Your task to perform on an android device: toggle wifi Image 0: 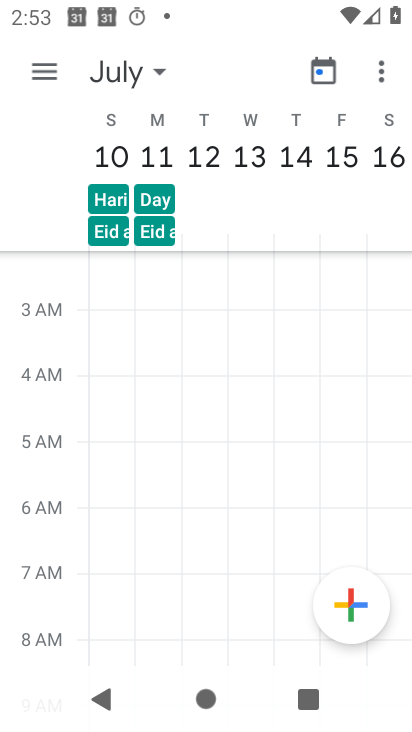
Step 0: press home button
Your task to perform on an android device: toggle wifi Image 1: 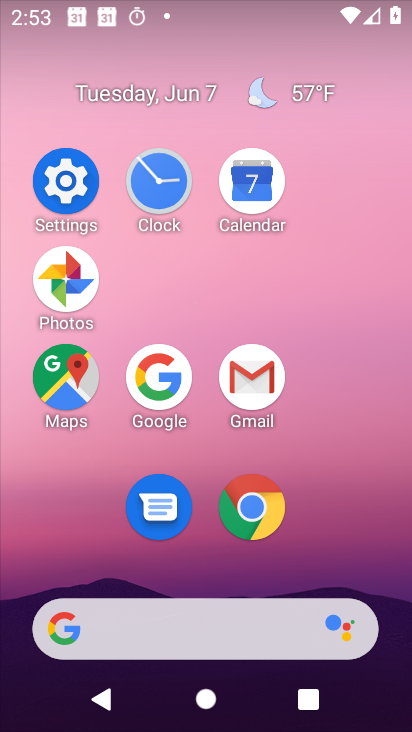
Step 1: click (84, 175)
Your task to perform on an android device: toggle wifi Image 2: 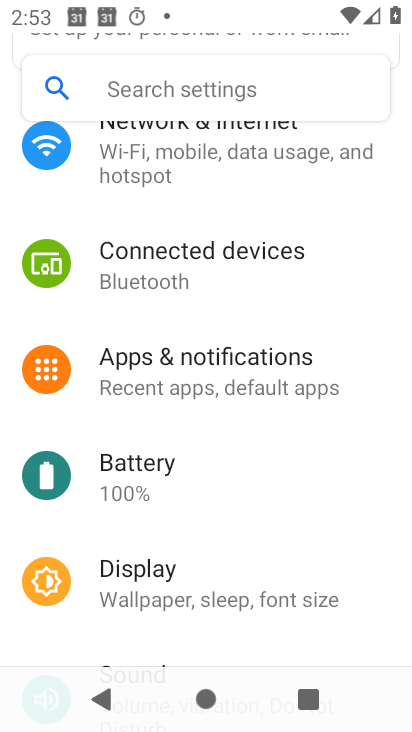
Step 2: drag from (284, 177) to (238, 439)
Your task to perform on an android device: toggle wifi Image 3: 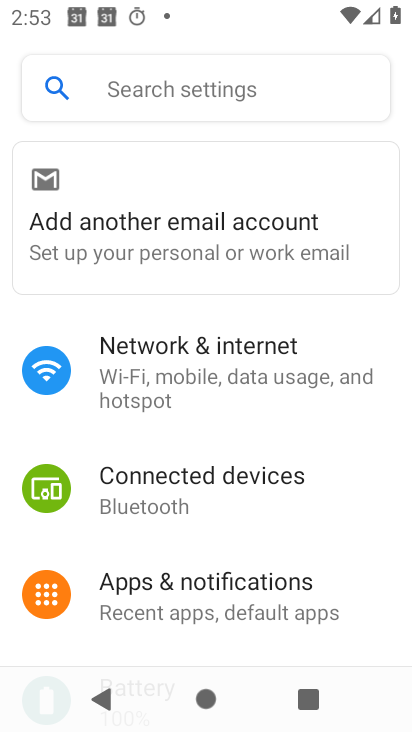
Step 3: click (239, 312)
Your task to perform on an android device: toggle wifi Image 4: 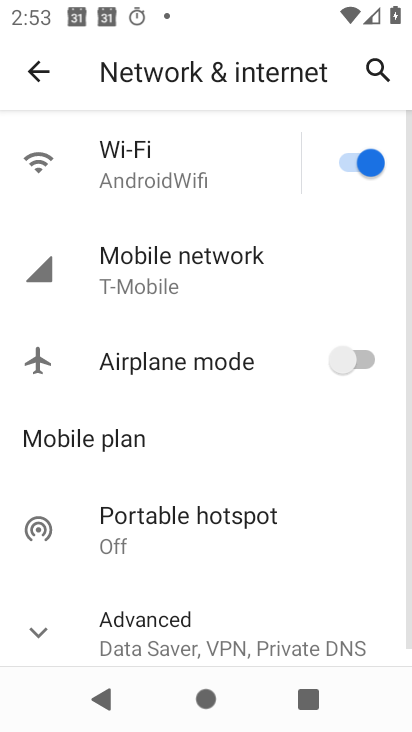
Step 4: click (343, 170)
Your task to perform on an android device: toggle wifi Image 5: 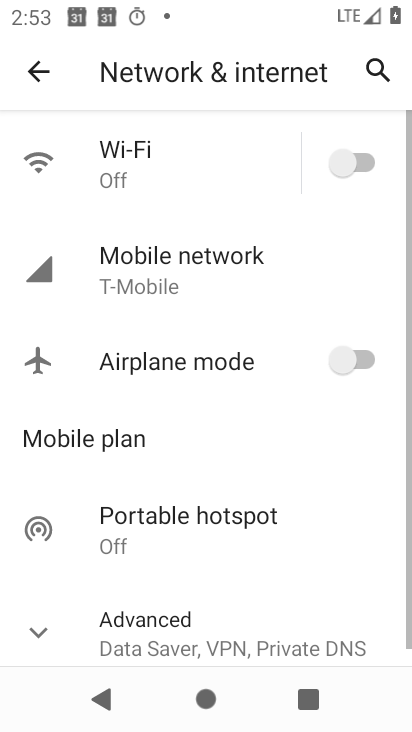
Step 5: task complete